Your task to perform on an android device: change notifications settings Image 0: 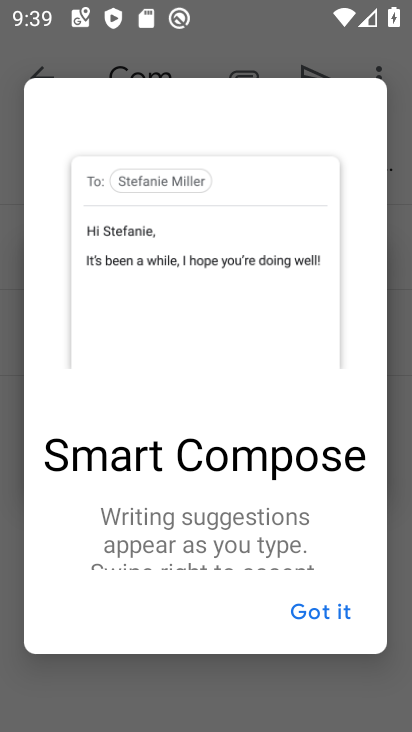
Step 0: press home button
Your task to perform on an android device: change notifications settings Image 1: 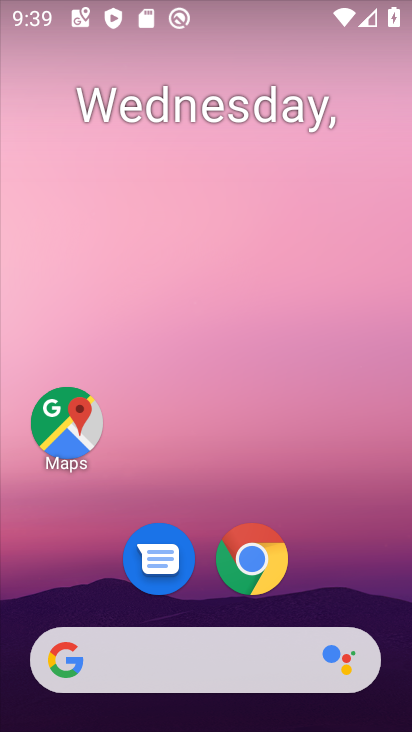
Step 1: drag from (331, 576) to (270, 44)
Your task to perform on an android device: change notifications settings Image 2: 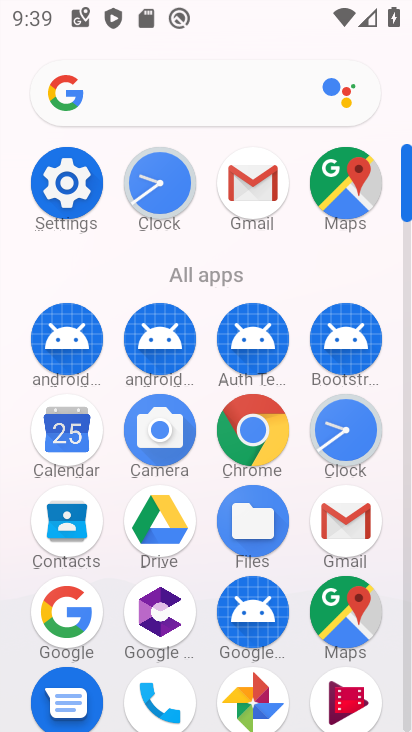
Step 2: click (66, 194)
Your task to perform on an android device: change notifications settings Image 3: 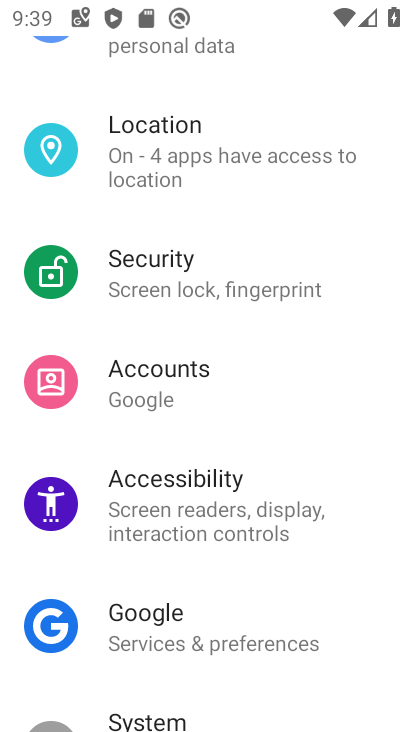
Step 3: drag from (242, 37) to (72, 591)
Your task to perform on an android device: change notifications settings Image 4: 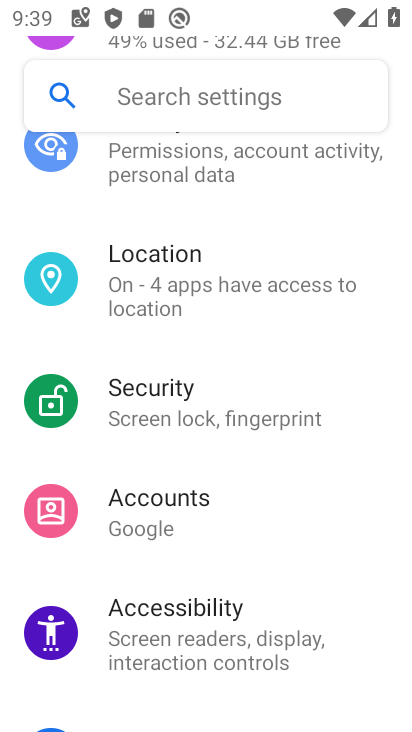
Step 4: drag from (203, 229) to (98, 726)
Your task to perform on an android device: change notifications settings Image 5: 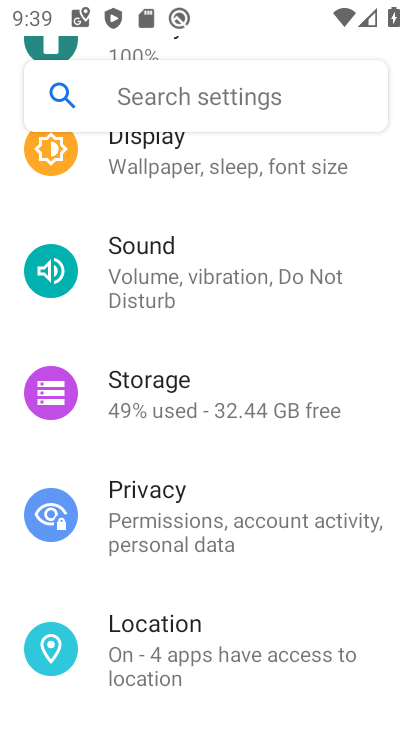
Step 5: drag from (222, 140) to (191, 682)
Your task to perform on an android device: change notifications settings Image 6: 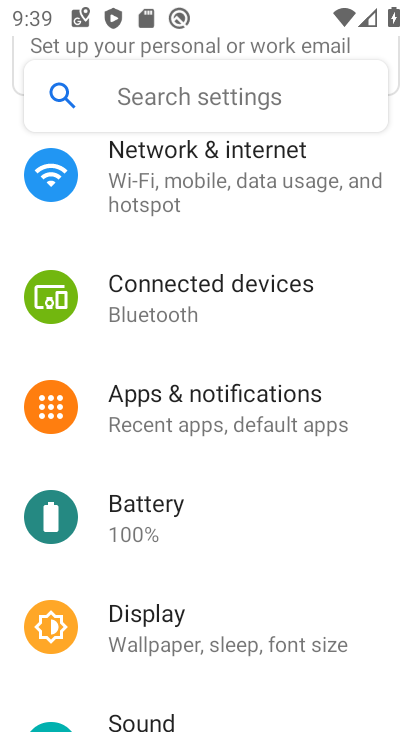
Step 6: click (205, 404)
Your task to perform on an android device: change notifications settings Image 7: 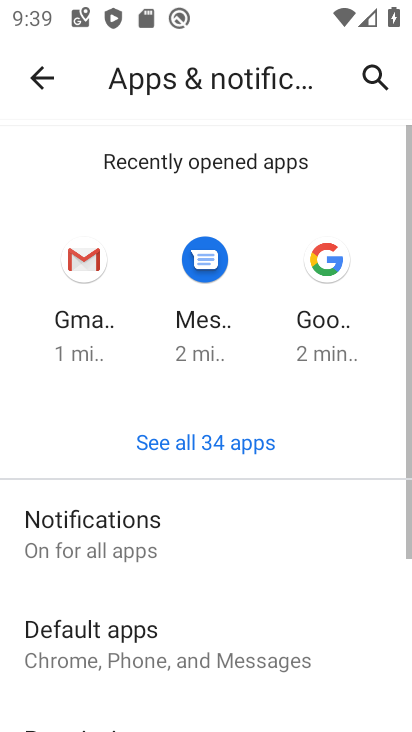
Step 7: click (150, 517)
Your task to perform on an android device: change notifications settings Image 8: 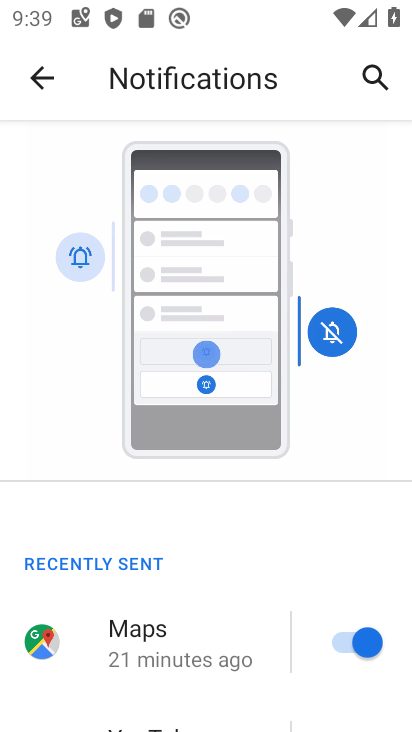
Step 8: drag from (123, 684) to (157, 332)
Your task to perform on an android device: change notifications settings Image 9: 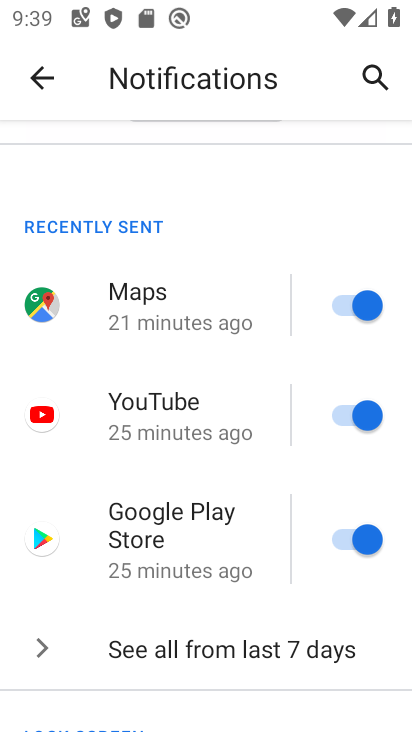
Step 9: drag from (116, 619) to (123, 497)
Your task to perform on an android device: change notifications settings Image 10: 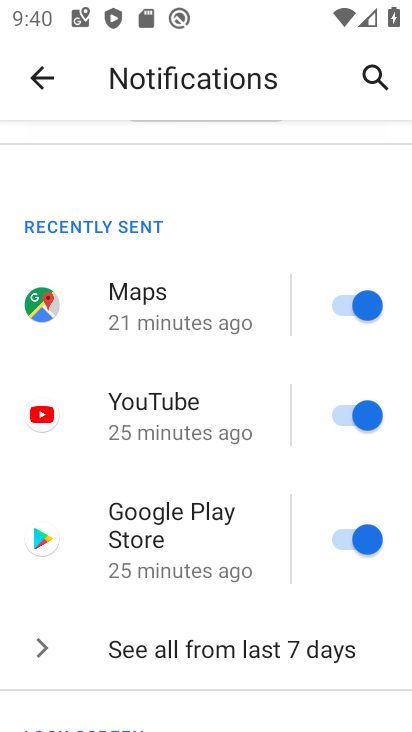
Step 10: drag from (121, 684) to (125, 72)
Your task to perform on an android device: change notifications settings Image 11: 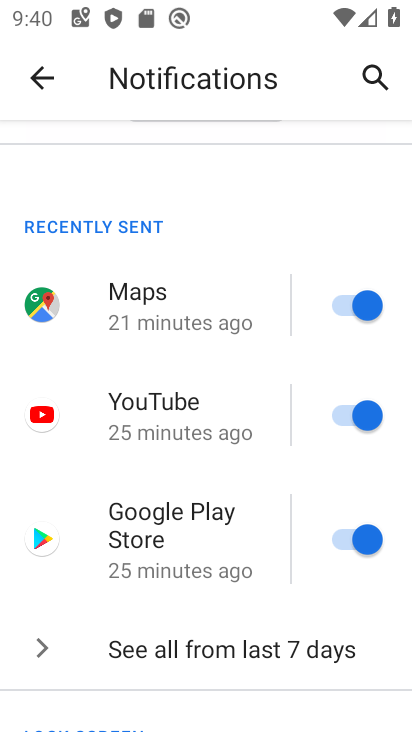
Step 11: drag from (76, 706) to (119, 182)
Your task to perform on an android device: change notifications settings Image 12: 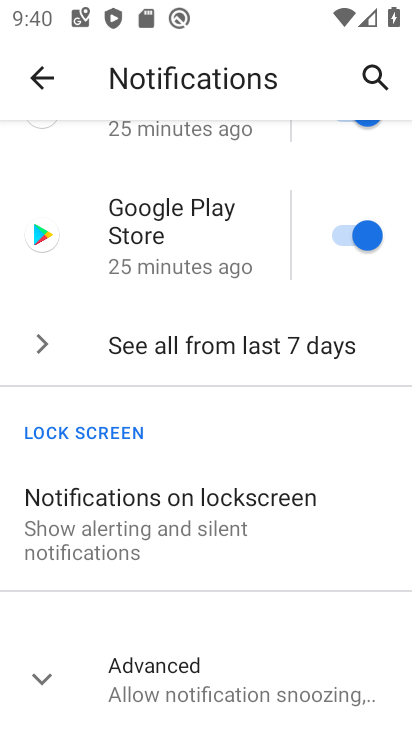
Step 12: drag from (70, 705) to (103, 152)
Your task to perform on an android device: change notifications settings Image 13: 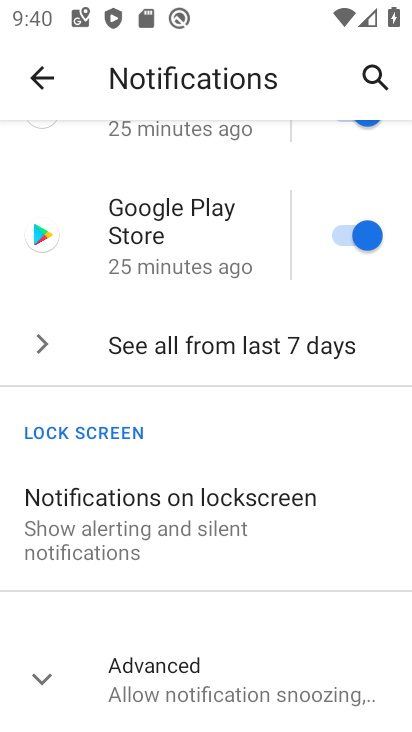
Step 13: drag from (252, 187) to (269, 634)
Your task to perform on an android device: change notifications settings Image 14: 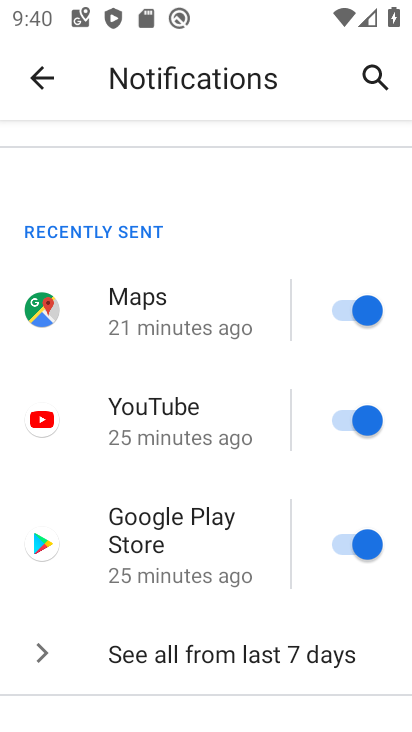
Step 14: drag from (154, 297) to (205, 693)
Your task to perform on an android device: change notifications settings Image 15: 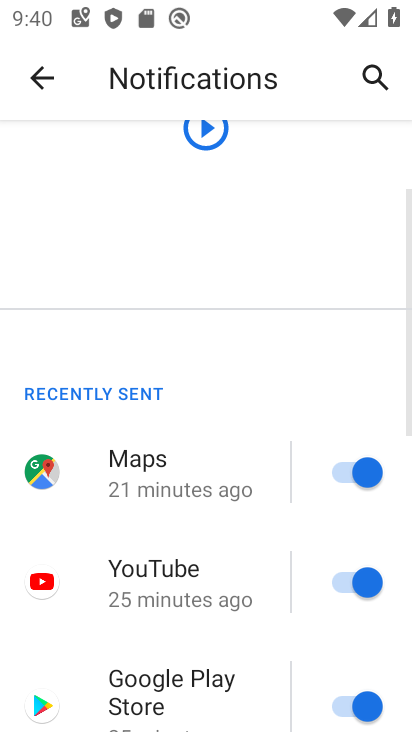
Step 15: drag from (277, 276) to (273, 461)
Your task to perform on an android device: change notifications settings Image 16: 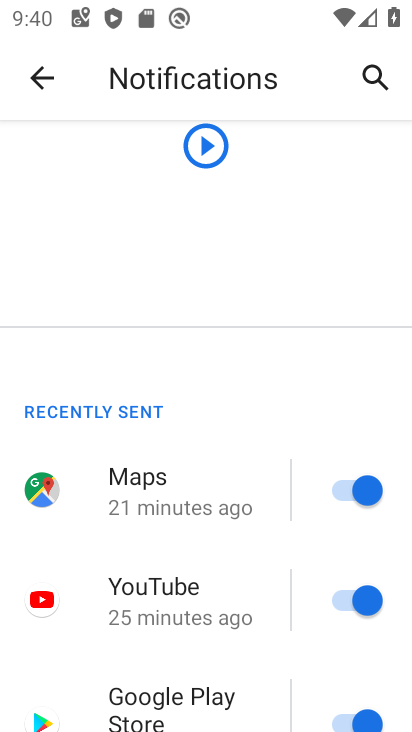
Step 16: click (356, 484)
Your task to perform on an android device: change notifications settings Image 17: 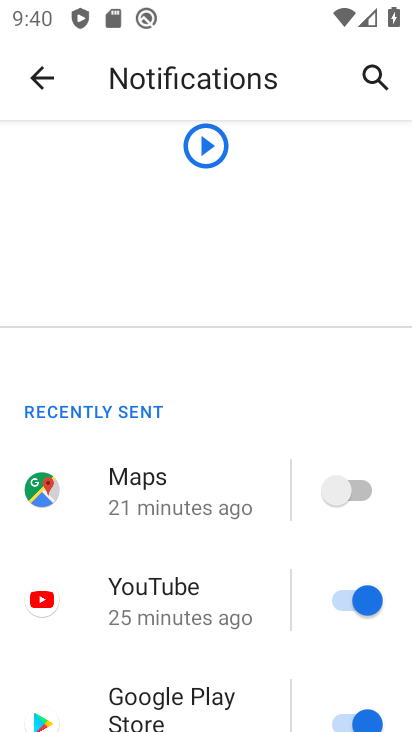
Step 17: click (352, 605)
Your task to perform on an android device: change notifications settings Image 18: 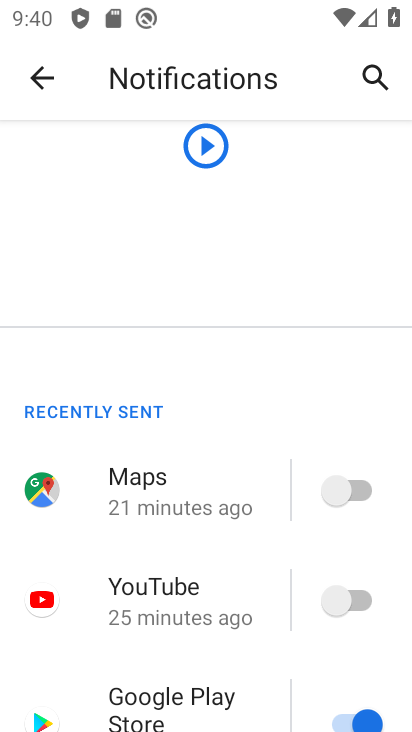
Step 18: click (374, 719)
Your task to perform on an android device: change notifications settings Image 19: 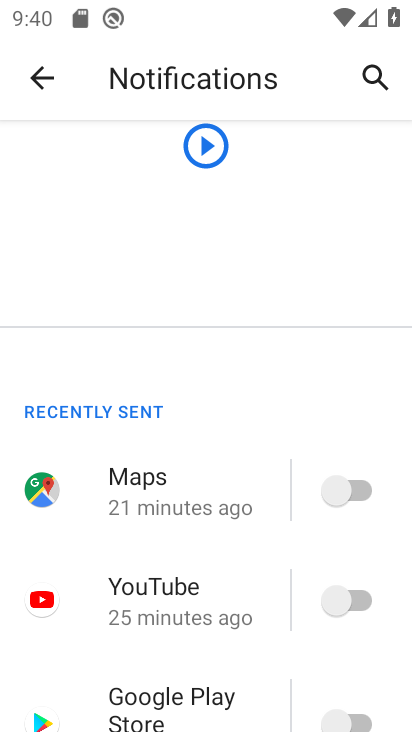
Step 19: click (374, 719)
Your task to perform on an android device: change notifications settings Image 20: 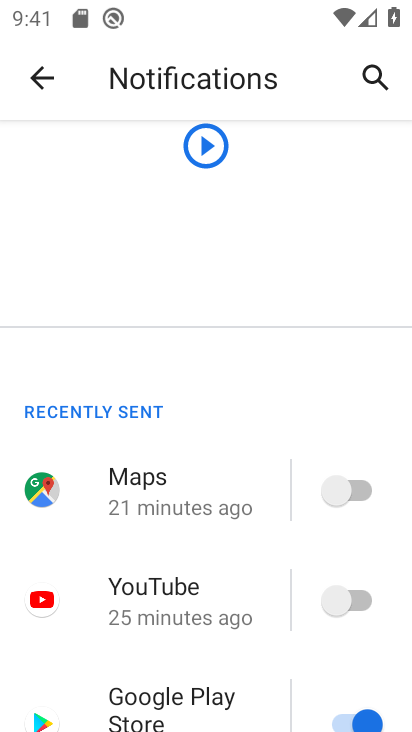
Step 20: task complete